Your task to perform on an android device: When is my next appointment? Image 0: 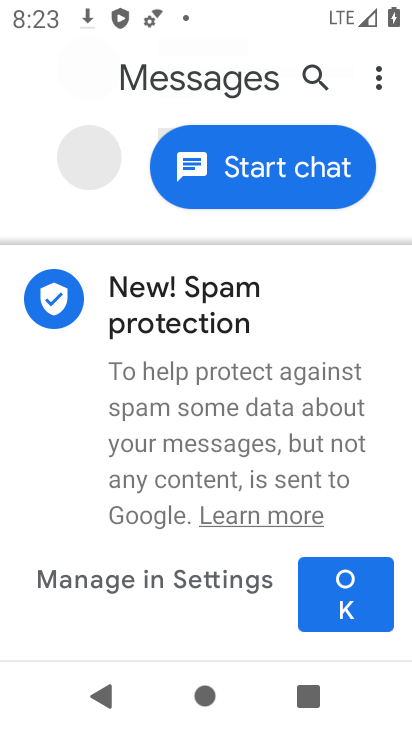
Step 0: press back button
Your task to perform on an android device: When is my next appointment? Image 1: 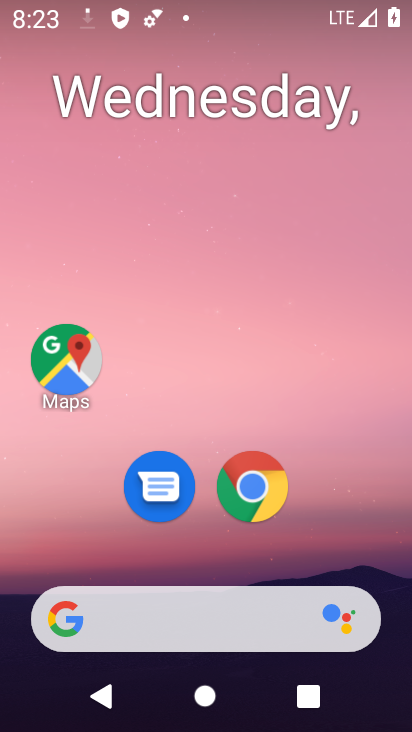
Step 1: drag from (198, 570) to (163, 0)
Your task to perform on an android device: When is my next appointment? Image 2: 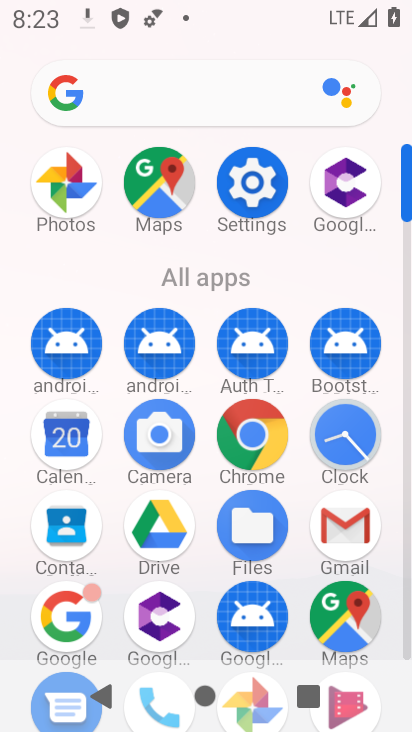
Step 2: click (64, 449)
Your task to perform on an android device: When is my next appointment? Image 3: 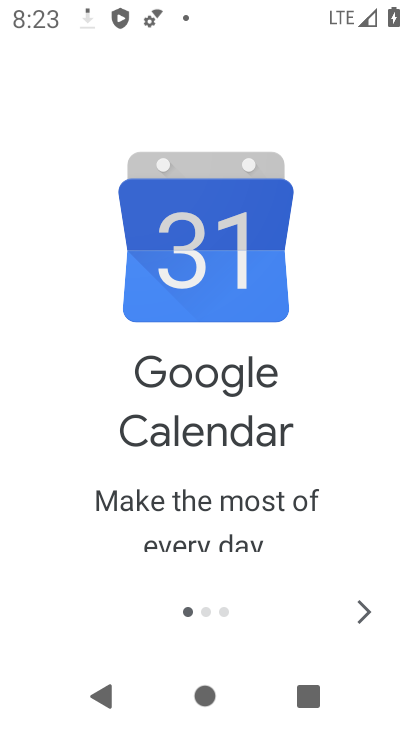
Step 3: click (367, 609)
Your task to perform on an android device: When is my next appointment? Image 4: 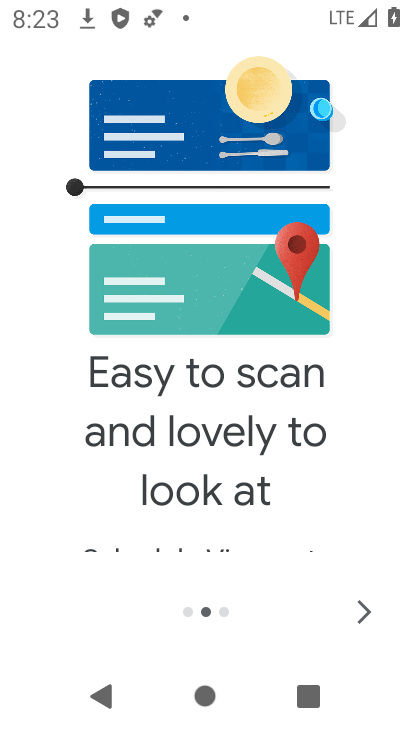
Step 4: click (367, 609)
Your task to perform on an android device: When is my next appointment? Image 5: 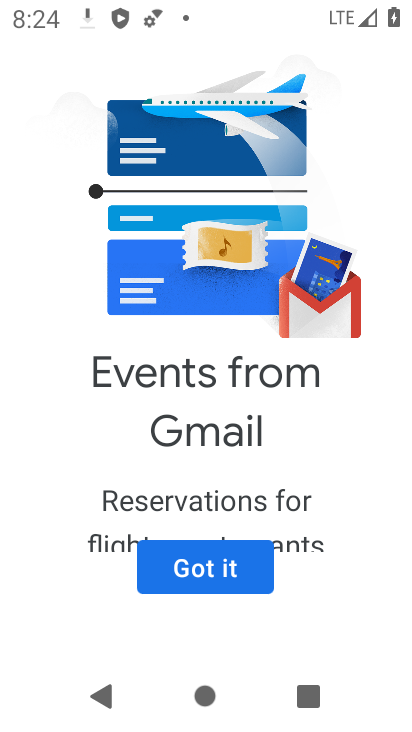
Step 5: click (206, 587)
Your task to perform on an android device: When is my next appointment? Image 6: 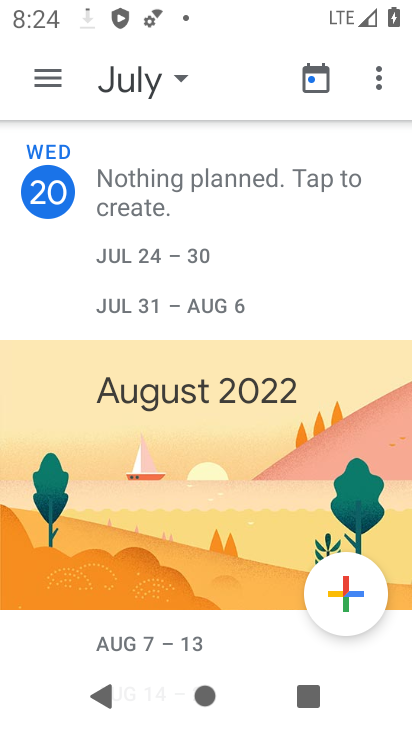
Step 6: task complete